Your task to perform on an android device: create a new album in the google photos Image 0: 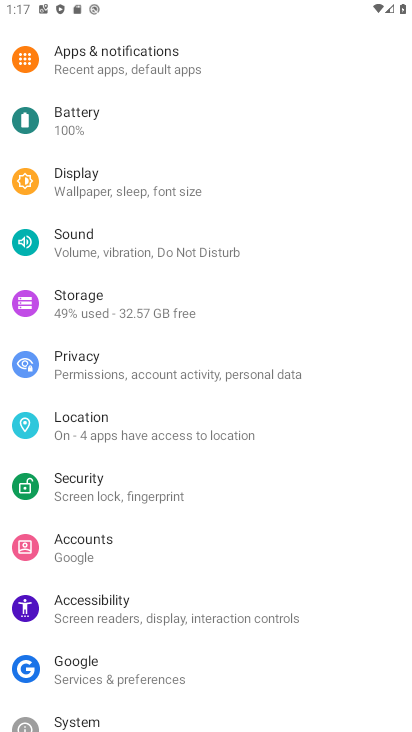
Step 0: press home button
Your task to perform on an android device: create a new album in the google photos Image 1: 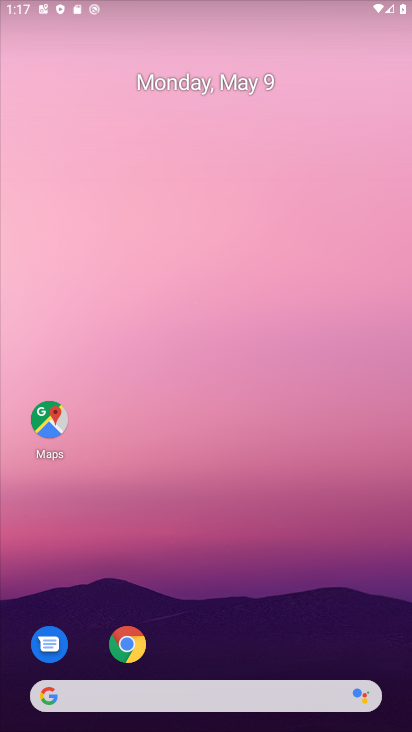
Step 1: drag from (245, 565) to (190, 91)
Your task to perform on an android device: create a new album in the google photos Image 2: 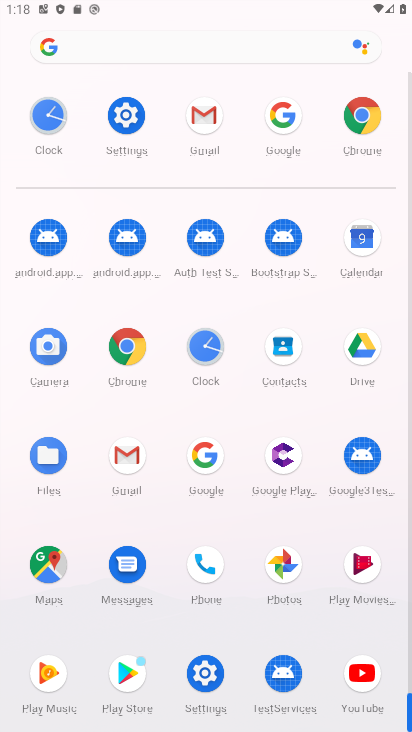
Step 2: click (291, 577)
Your task to perform on an android device: create a new album in the google photos Image 3: 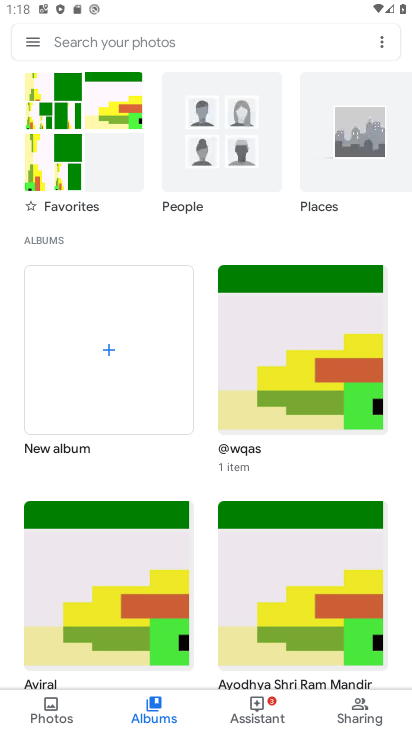
Step 3: click (112, 346)
Your task to perform on an android device: create a new album in the google photos Image 4: 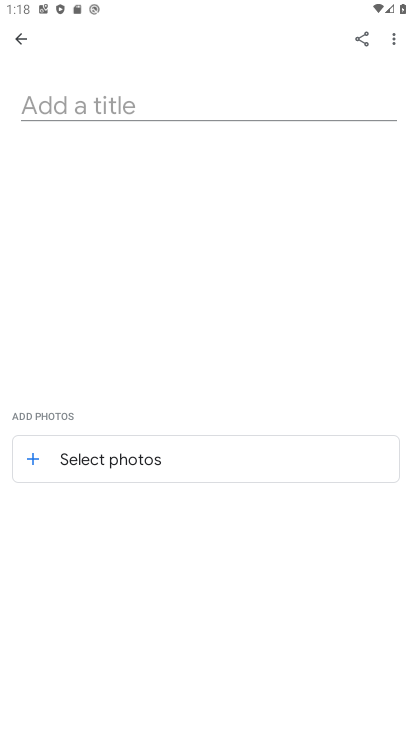
Step 4: click (128, 91)
Your task to perform on an android device: create a new album in the google photos Image 5: 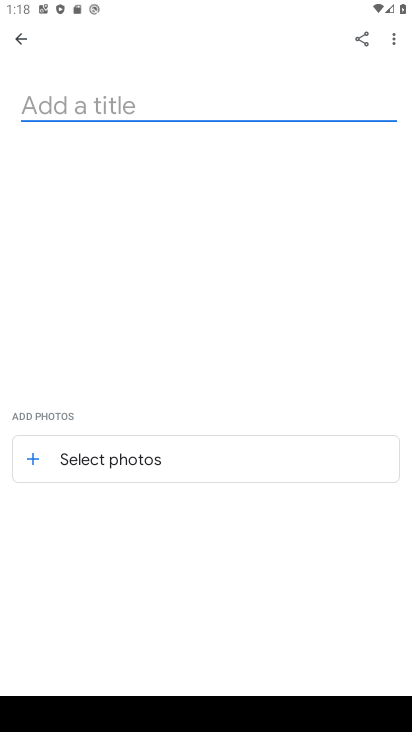
Step 5: type "Ananya"
Your task to perform on an android device: create a new album in the google photos Image 6: 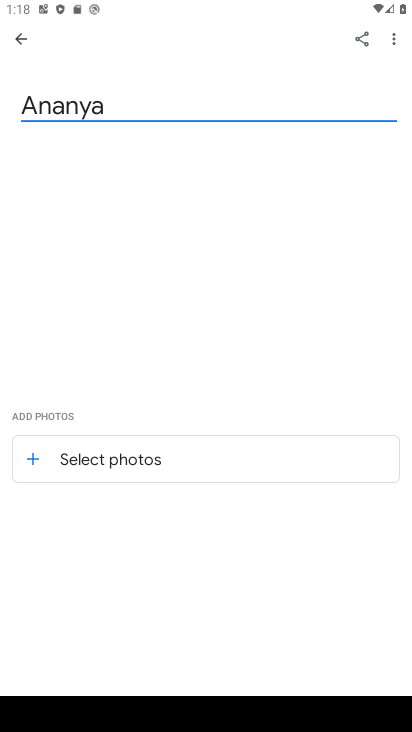
Step 6: click (132, 459)
Your task to perform on an android device: create a new album in the google photos Image 7: 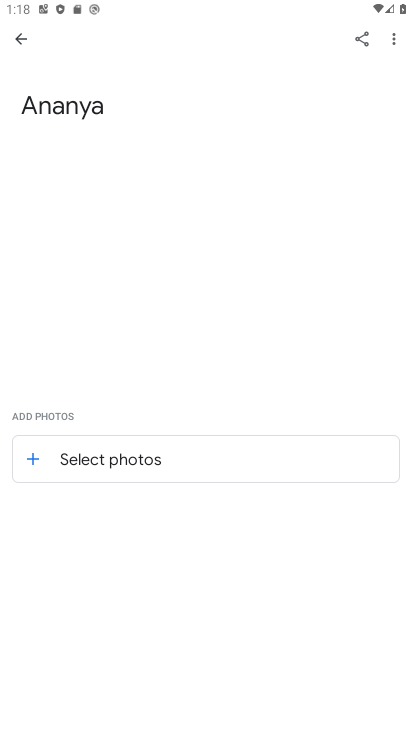
Step 7: click (33, 453)
Your task to perform on an android device: create a new album in the google photos Image 8: 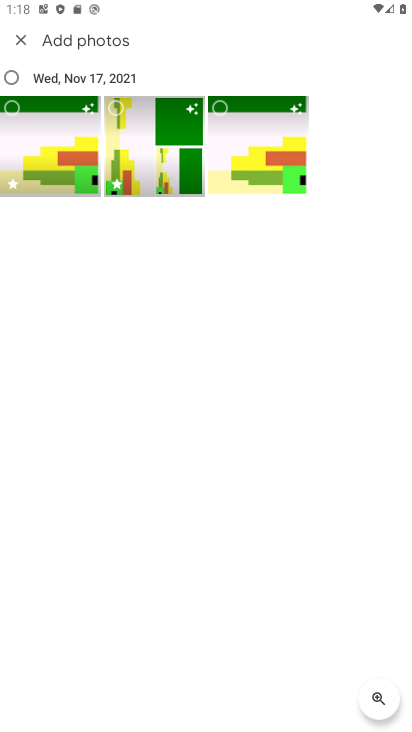
Step 8: click (9, 70)
Your task to perform on an android device: create a new album in the google photos Image 9: 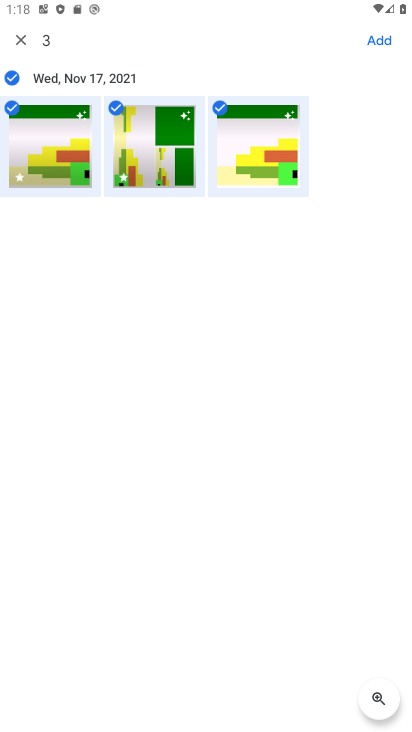
Step 9: task complete